Your task to perform on an android device: Open network settings Image 0: 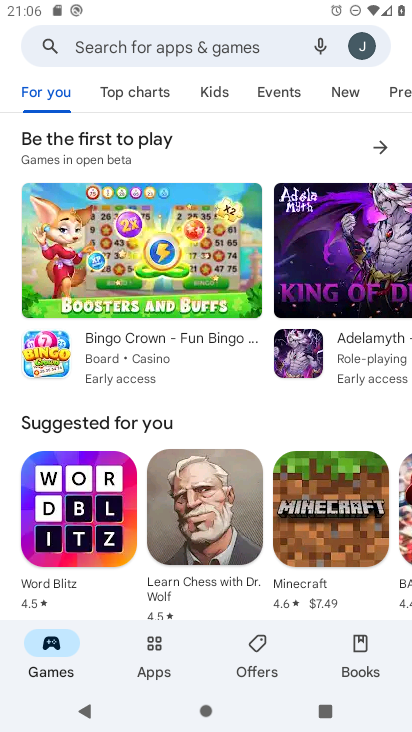
Step 0: press home button
Your task to perform on an android device: Open network settings Image 1: 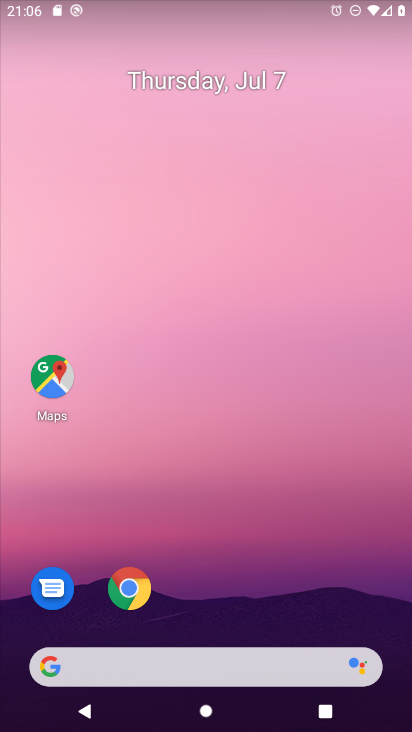
Step 1: drag from (232, 566) to (237, 193)
Your task to perform on an android device: Open network settings Image 2: 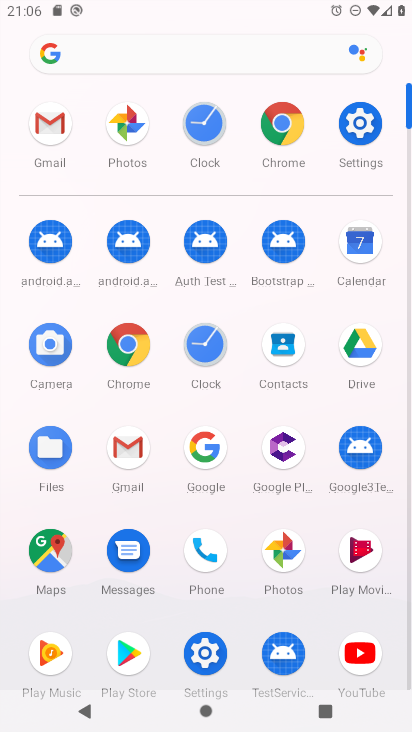
Step 2: click (369, 126)
Your task to perform on an android device: Open network settings Image 3: 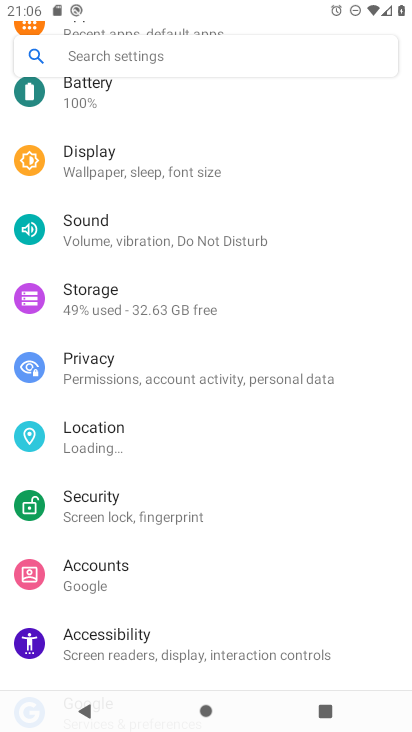
Step 3: drag from (120, 311) to (134, 719)
Your task to perform on an android device: Open network settings Image 4: 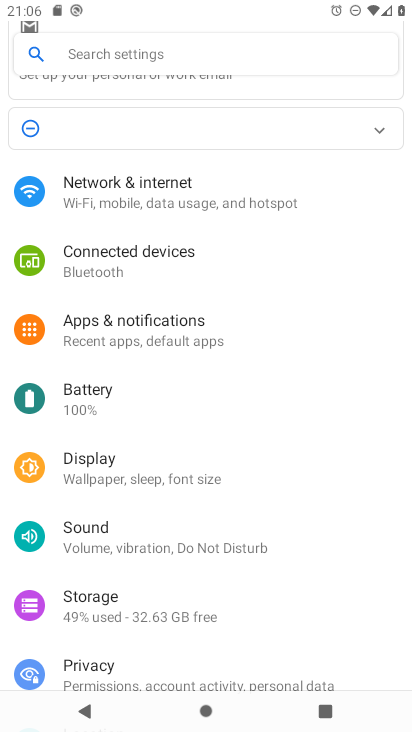
Step 4: click (148, 203)
Your task to perform on an android device: Open network settings Image 5: 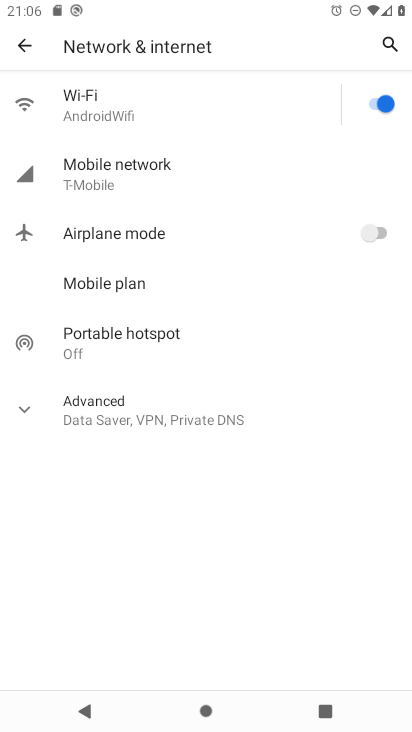
Step 5: task complete